Your task to perform on an android device: set the stopwatch Image 0: 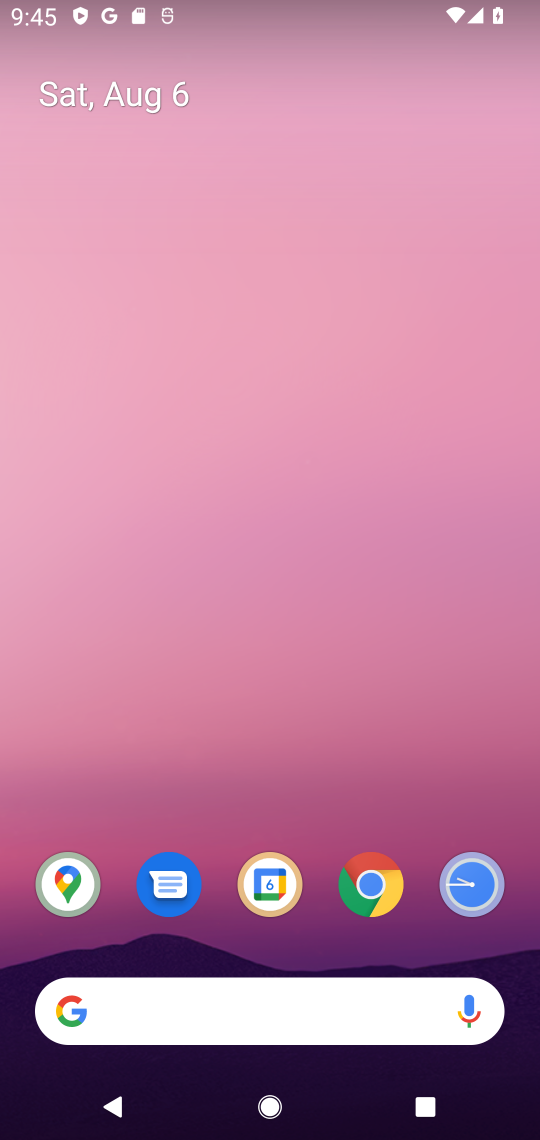
Step 0: click (468, 882)
Your task to perform on an android device: set the stopwatch Image 1: 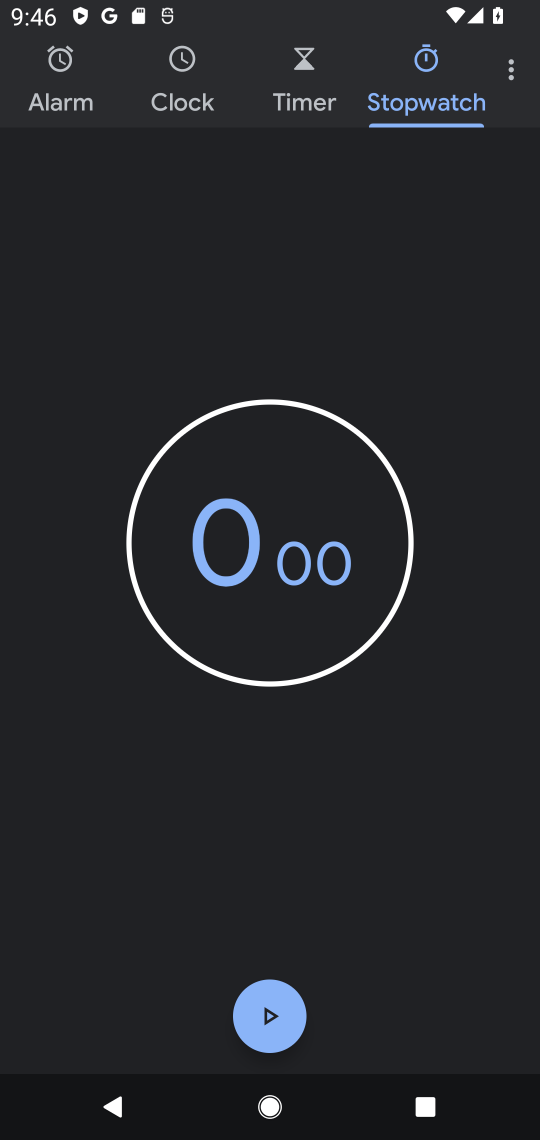
Step 1: task complete